Your task to perform on an android device: find which apps use the phone's location Image 0: 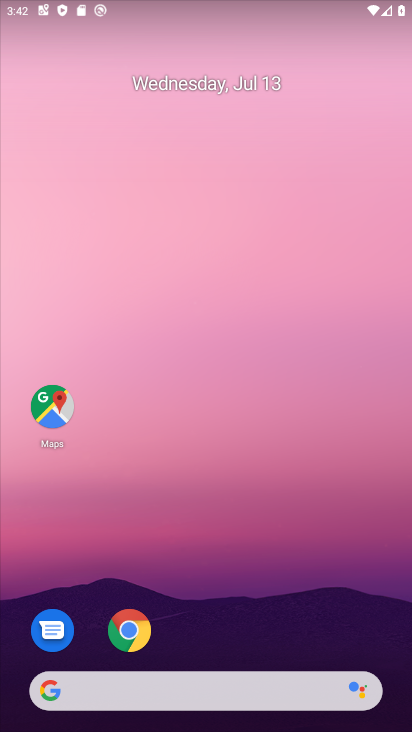
Step 0: drag from (267, 573) to (351, 16)
Your task to perform on an android device: find which apps use the phone's location Image 1: 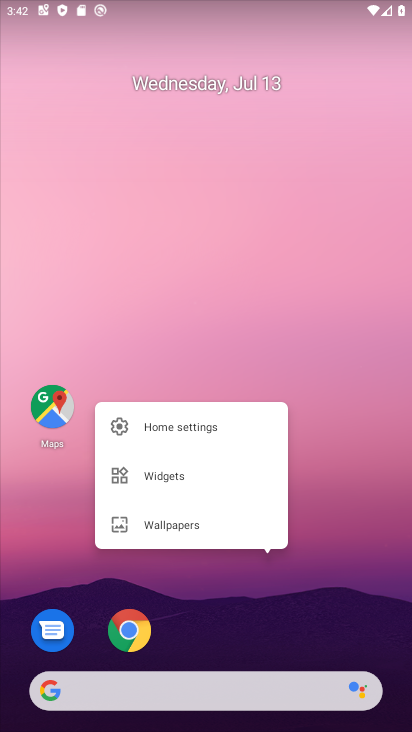
Step 1: drag from (266, 592) to (357, 247)
Your task to perform on an android device: find which apps use the phone's location Image 2: 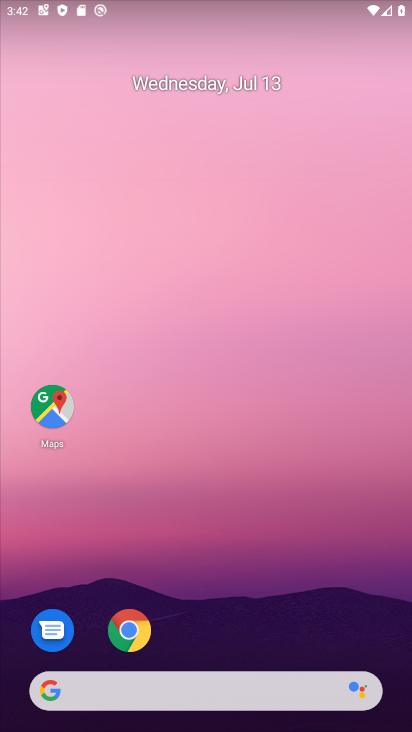
Step 2: click (334, 310)
Your task to perform on an android device: find which apps use the phone's location Image 3: 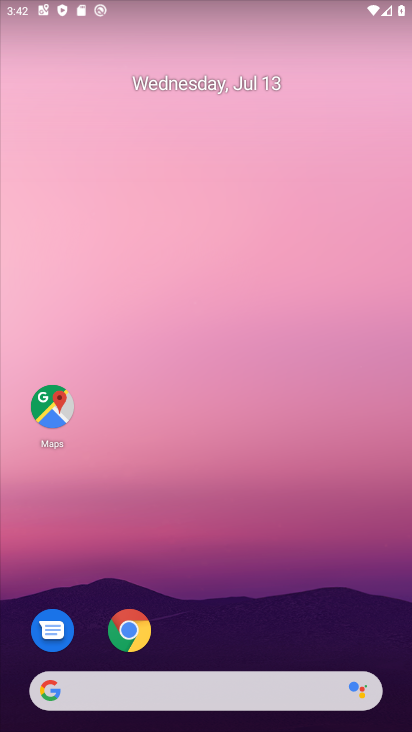
Step 3: drag from (276, 656) to (310, 120)
Your task to perform on an android device: find which apps use the phone's location Image 4: 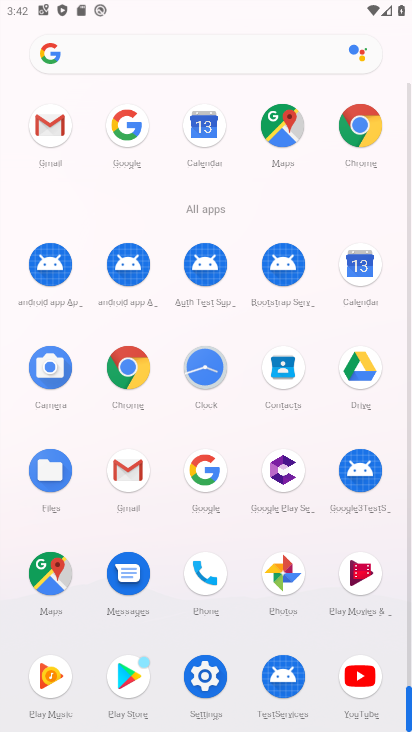
Step 4: click (214, 681)
Your task to perform on an android device: find which apps use the phone's location Image 5: 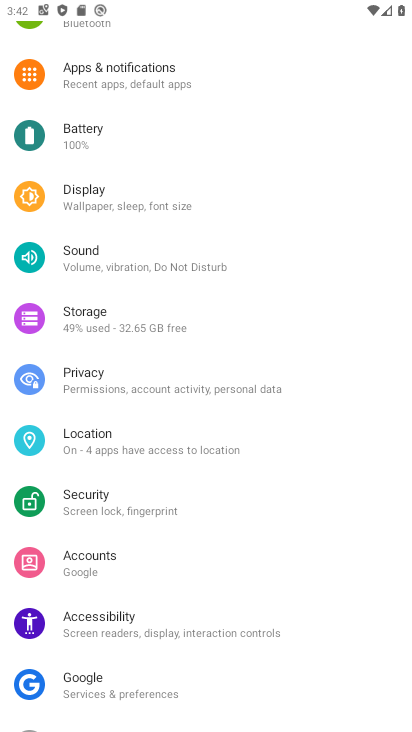
Step 5: drag from (170, 676) to (229, 268)
Your task to perform on an android device: find which apps use the phone's location Image 6: 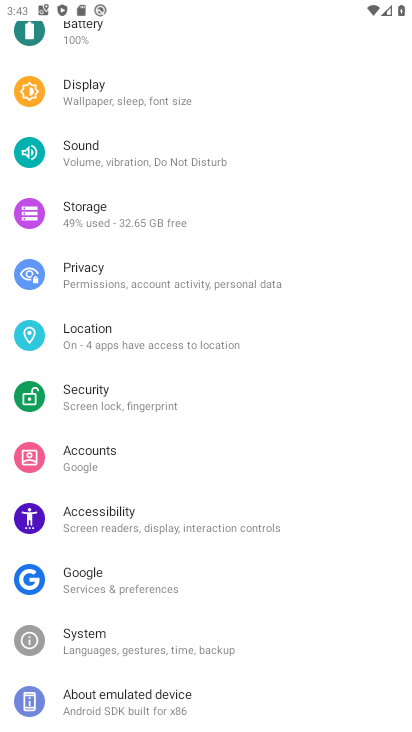
Step 6: drag from (258, 582) to (287, 203)
Your task to perform on an android device: find which apps use the phone's location Image 7: 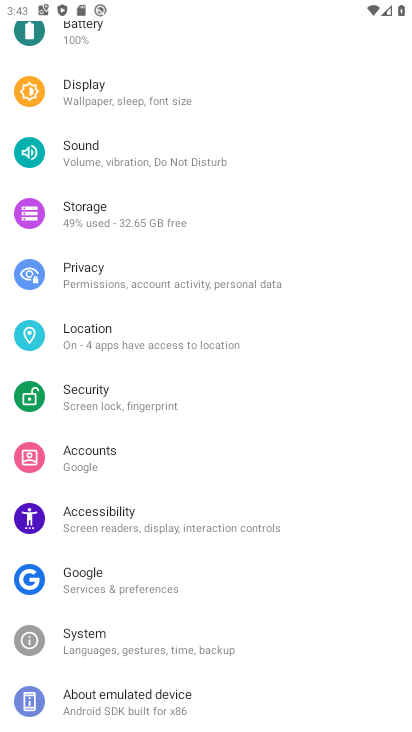
Step 7: drag from (287, 203) to (185, 594)
Your task to perform on an android device: find which apps use the phone's location Image 8: 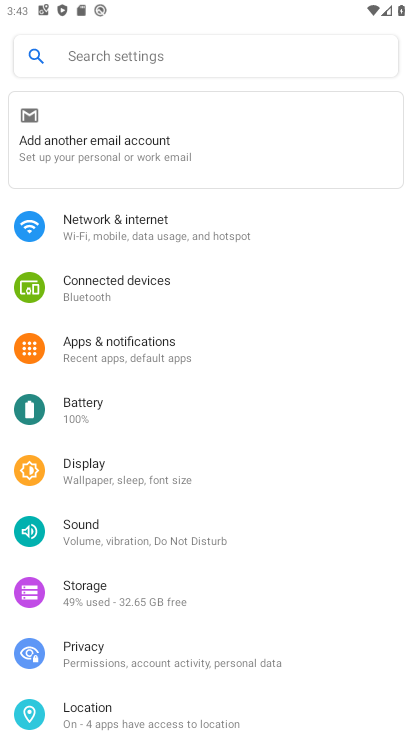
Step 8: drag from (161, 567) to (256, 131)
Your task to perform on an android device: find which apps use the phone's location Image 9: 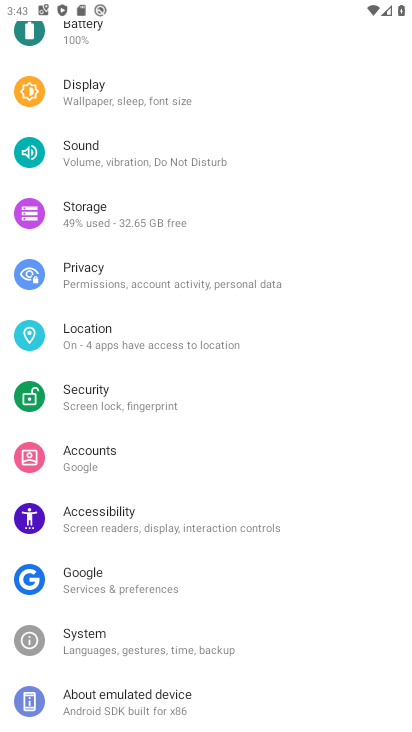
Step 9: drag from (180, 583) to (269, 127)
Your task to perform on an android device: find which apps use the phone's location Image 10: 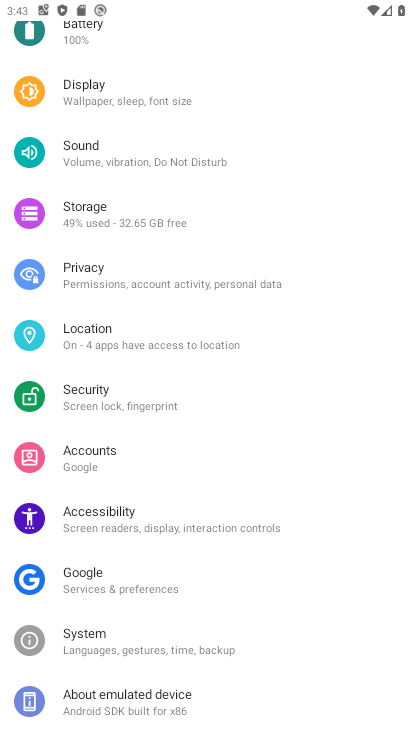
Step 10: drag from (226, 219) to (282, 552)
Your task to perform on an android device: find which apps use the phone's location Image 11: 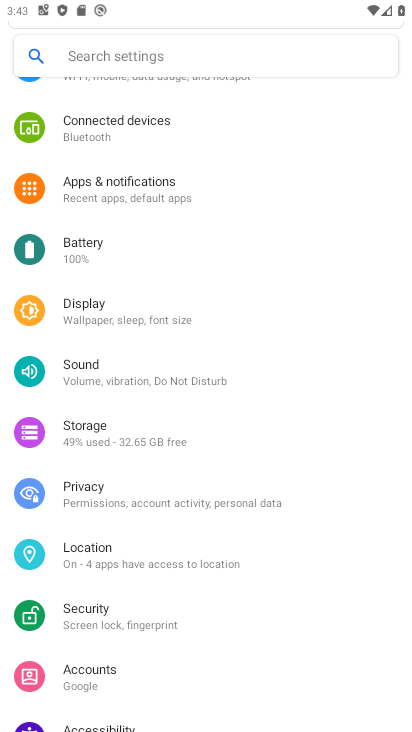
Step 11: click (168, 198)
Your task to perform on an android device: find which apps use the phone's location Image 12: 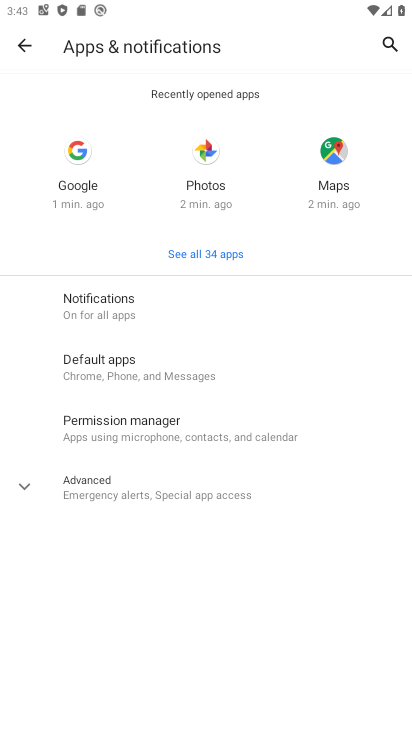
Step 12: click (126, 430)
Your task to perform on an android device: find which apps use the phone's location Image 13: 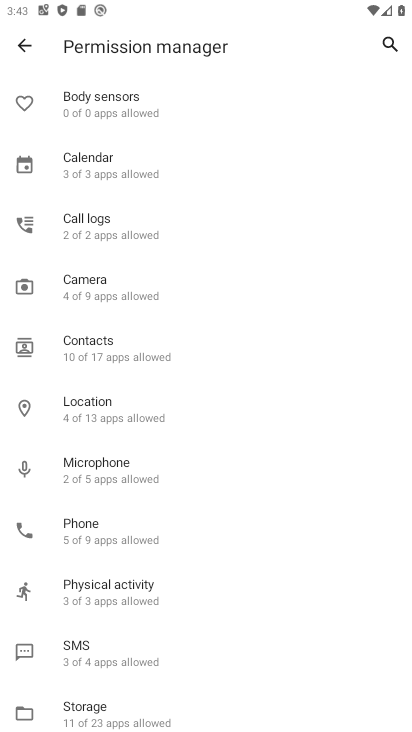
Step 13: task complete